Your task to perform on an android device: Open Youtube and go to "Your channel" Image 0: 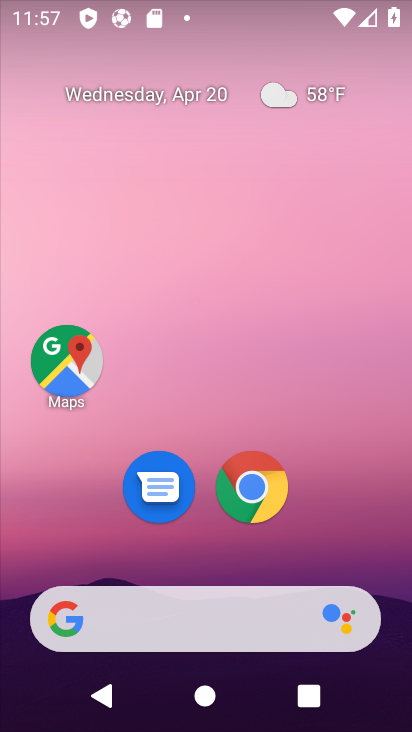
Step 0: drag from (372, 543) to (378, 6)
Your task to perform on an android device: Open Youtube and go to "Your channel" Image 1: 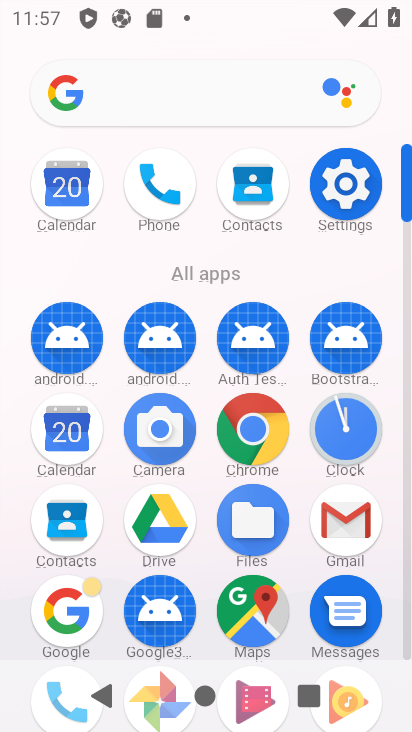
Step 1: click (408, 515)
Your task to perform on an android device: Open Youtube and go to "Your channel" Image 2: 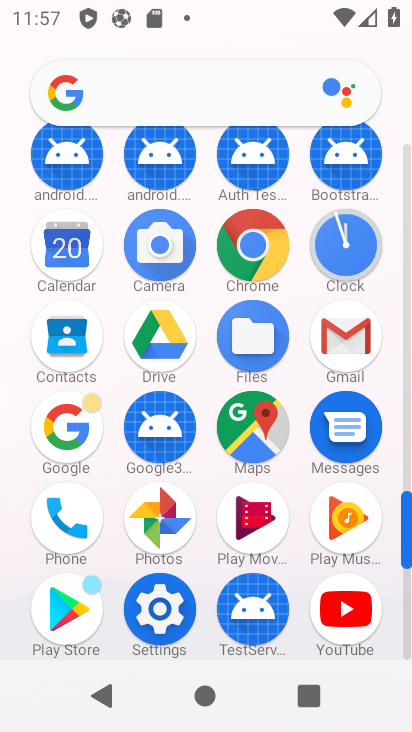
Step 2: click (346, 616)
Your task to perform on an android device: Open Youtube and go to "Your channel" Image 3: 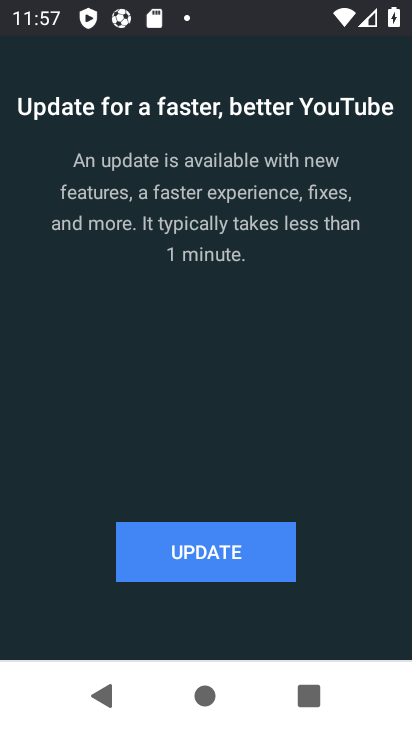
Step 3: click (217, 550)
Your task to perform on an android device: Open Youtube and go to "Your channel" Image 4: 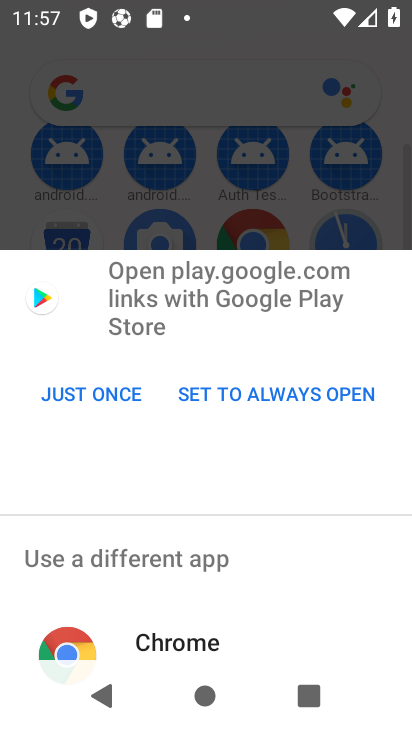
Step 4: click (80, 394)
Your task to perform on an android device: Open Youtube and go to "Your channel" Image 5: 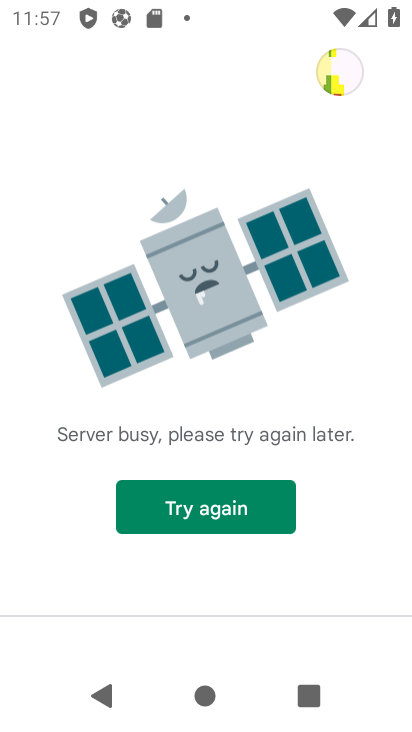
Step 5: click (246, 520)
Your task to perform on an android device: Open Youtube and go to "Your channel" Image 6: 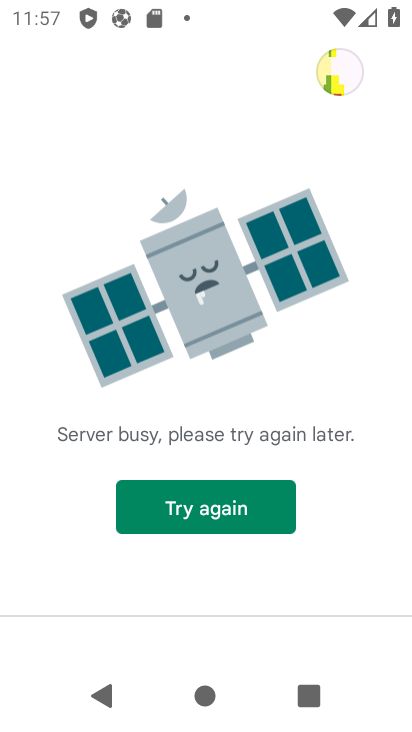
Step 6: task complete